Your task to perform on an android device: turn on showing notifications on the lock screen Image 0: 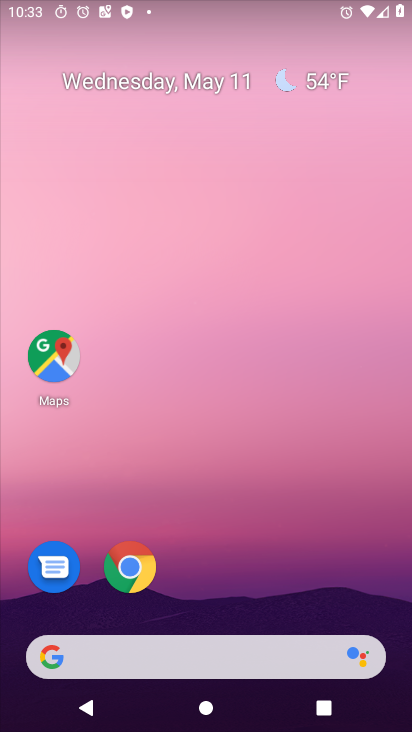
Step 0: drag from (217, 622) to (260, 11)
Your task to perform on an android device: turn on showing notifications on the lock screen Image 1: 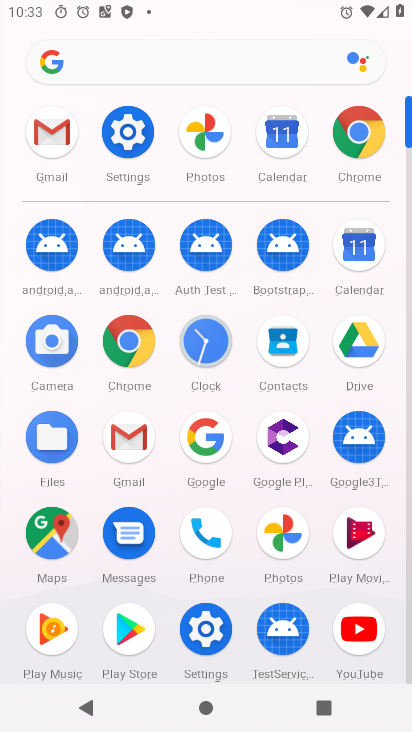
Step 1: click (202, 660)
Your task to perform on an android device: turn on showing notifications on the lock screen Image 2: 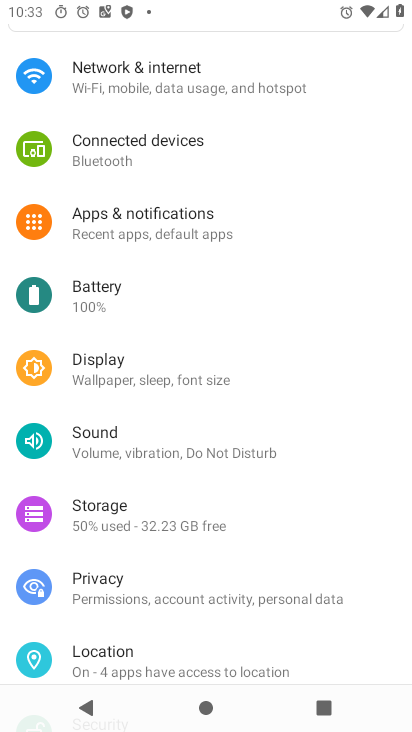
Step 2: click (164, 232)
Your task to perform on an android device: turn on showing notifications on the lock screen Image 3: 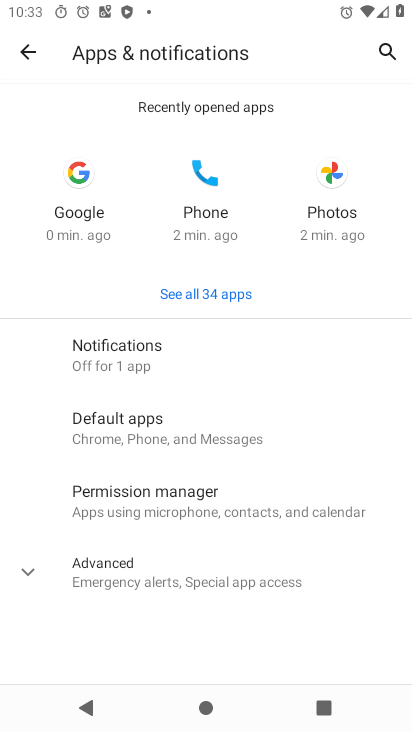
Step 3: click (147, 373)
Your task to perform on an android device: turn on showing notifications on the lock screen Image 4: 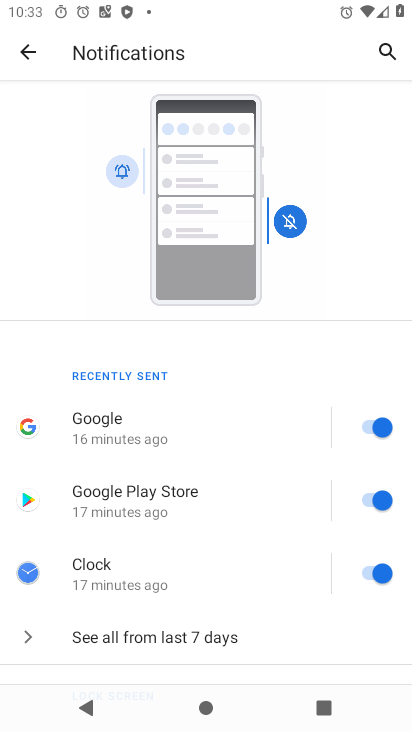
Step 4: drag from (173, 585) to (248, 211)
Your task to perform on an android device: turn on showing notifications on the lock screen Image 5: 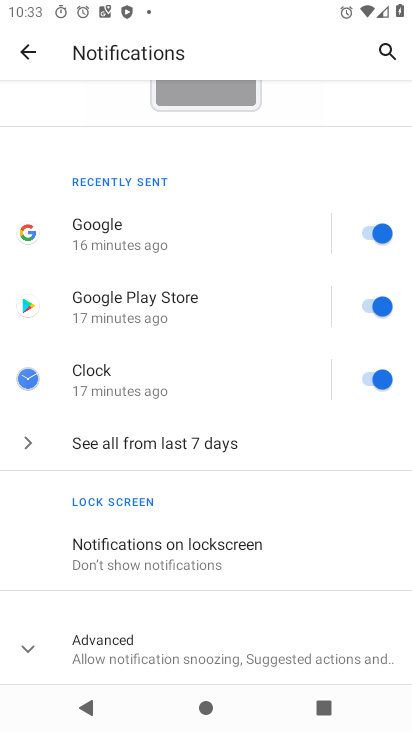
Step 5: click (205, 564)
Your task to perform on an android device: turn on showing notifications on the lock screen Image 6: 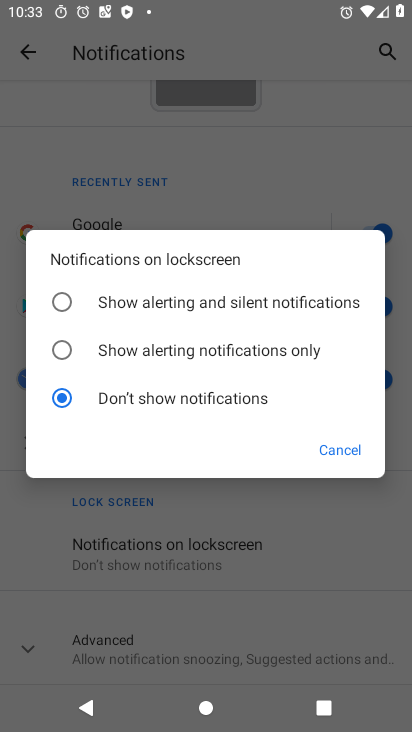
Step 6: click (108, 304)
Your task to perform on an android device: turn on showing notifications on the lock screen Image 7: 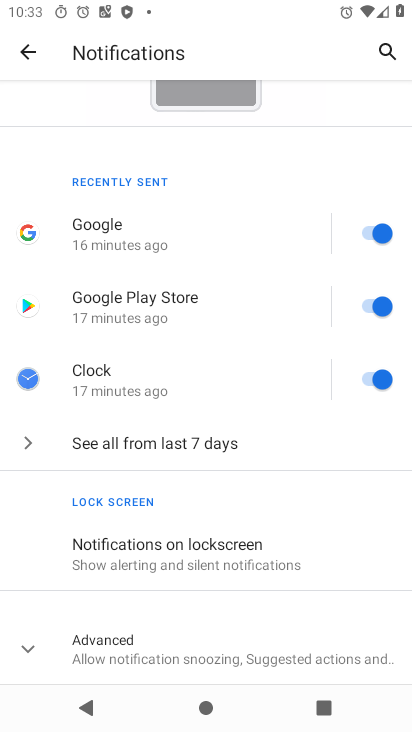
Step 7: task complete